Your task to perform on an android device: see creations saved in the google photos Image 0: 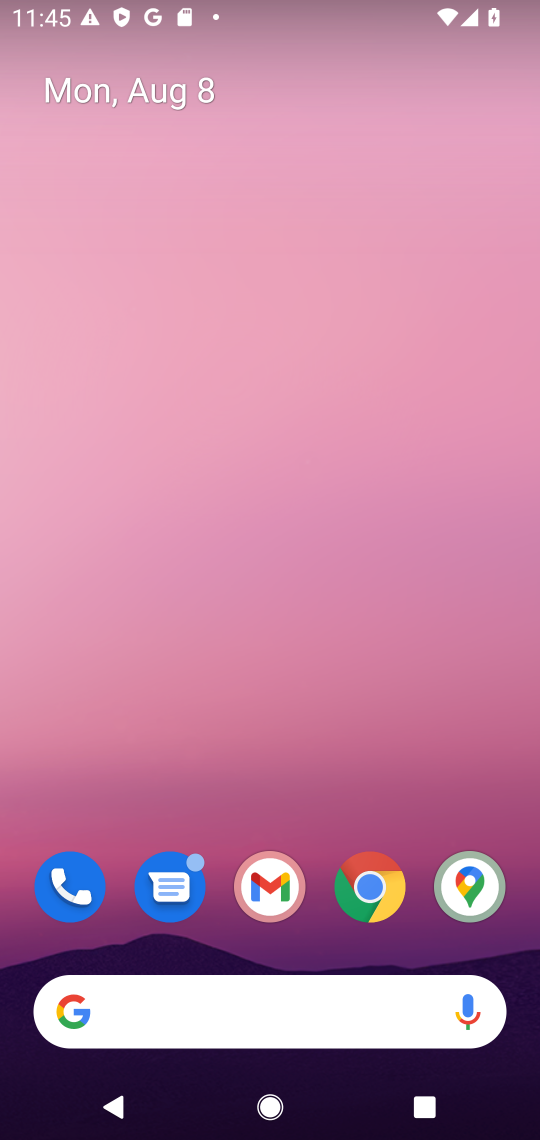
Step 0: drag from (349, 748) to (277, 85)
Your task to perform on an android device: see creations saved in the google photos Image 1: 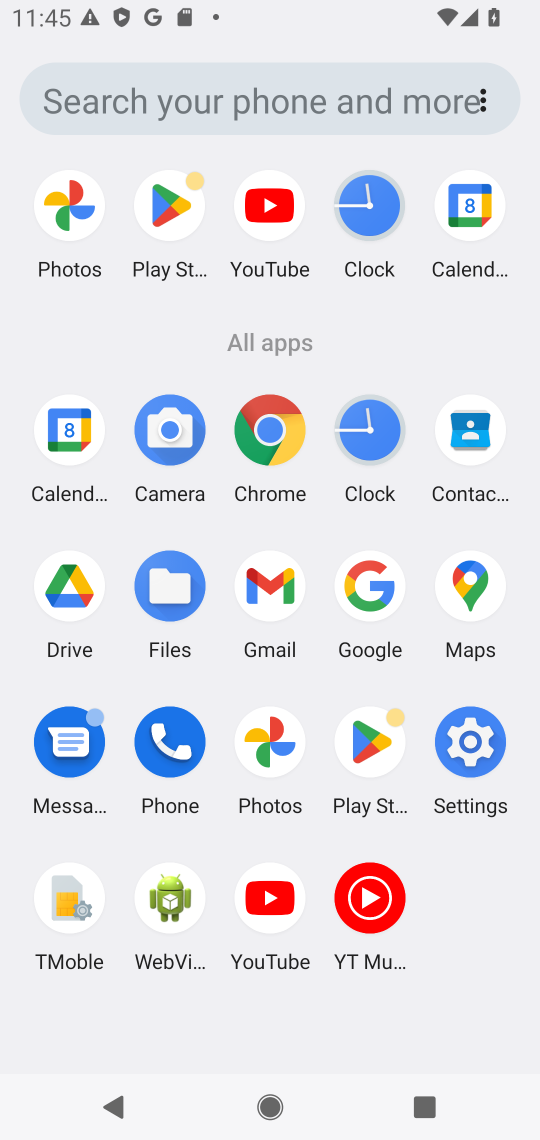
Step 1: click (73, 199)
Your task to perform on an android device: see creations saved in the google photos Image 2: 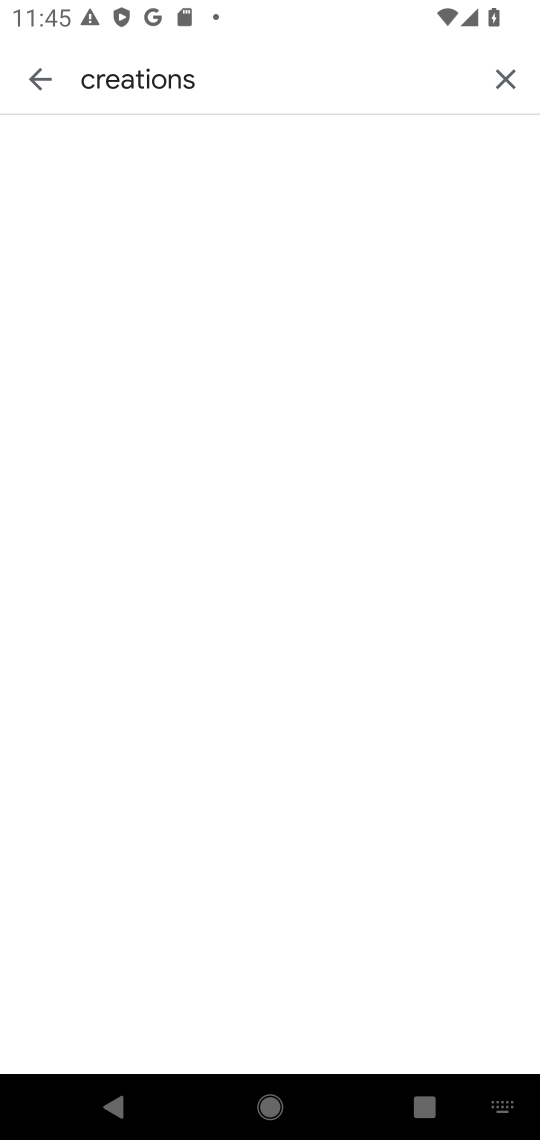
Step 2: click (314, 88)
Your task to perform on an android device: see creations saved in the google photos Image 3: 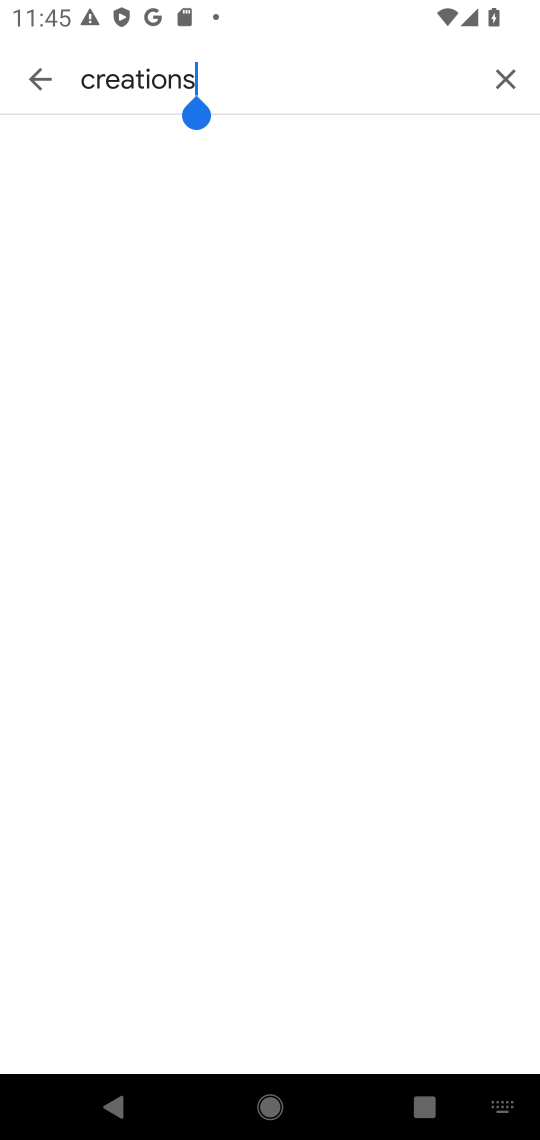
Step 3: click (32, 73)
Your task to perform on an android device: see creations saved in the google photos Image 4: 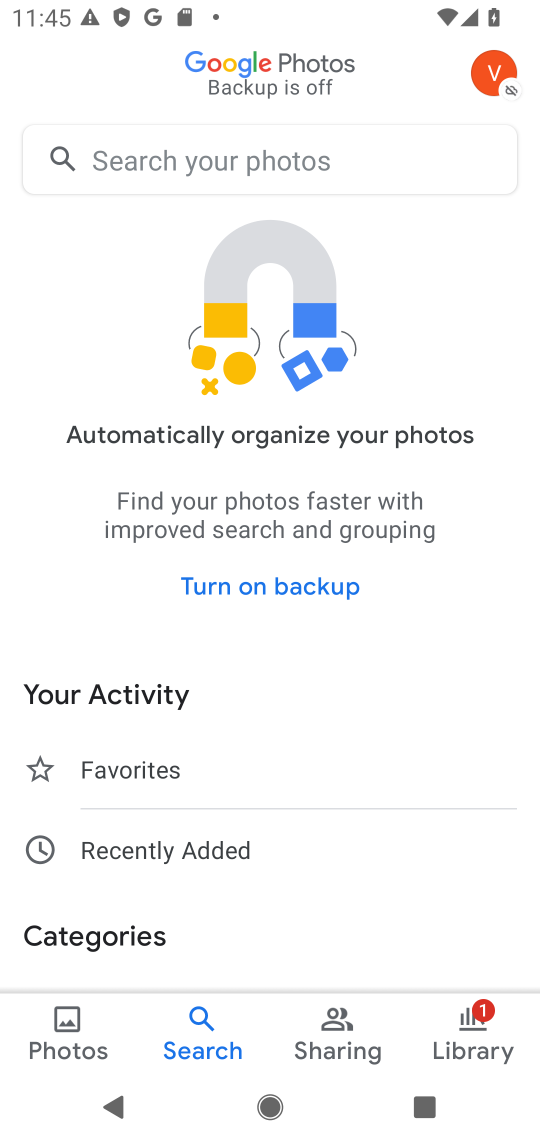
Step 4: drag from (284, 843) to (268, 515)
Your task to perform on an android device: see creations saved in the google photos Image 5: 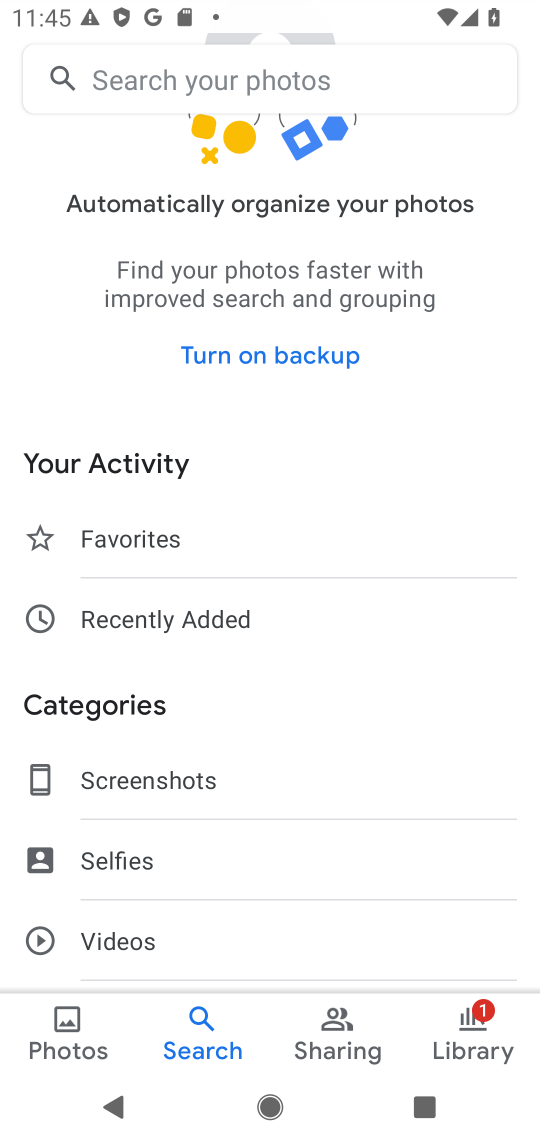
Step 5: drag from (251, 828) to (226, 471)
Your task to perform on an android device: see creations saved in the google photos Image 6: 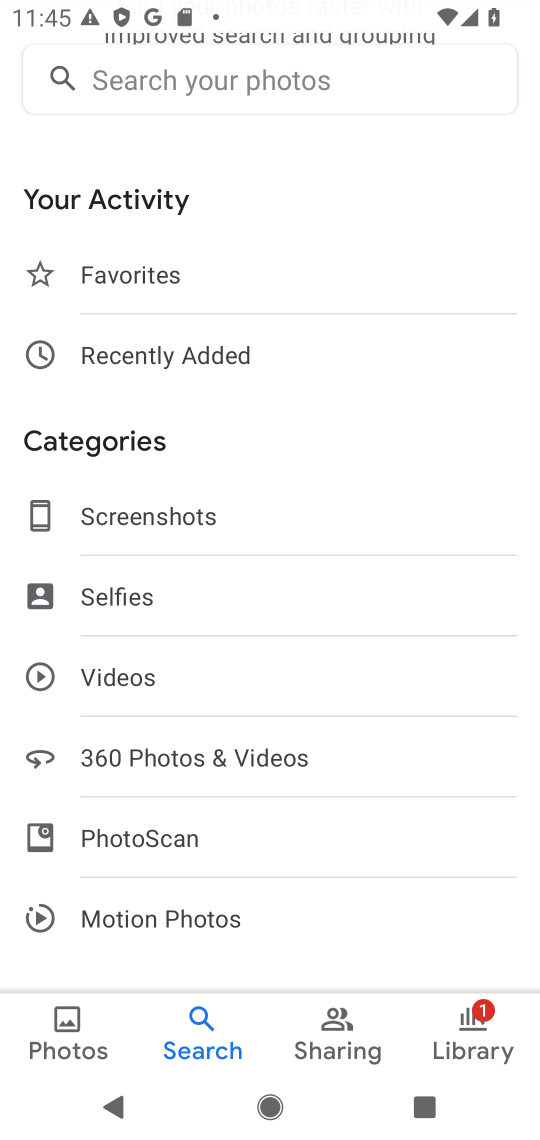
Step 6: drag from (274, 861) to (258, 585)
Your task to perform on an android device: see creations saved in the google photos Image 7: 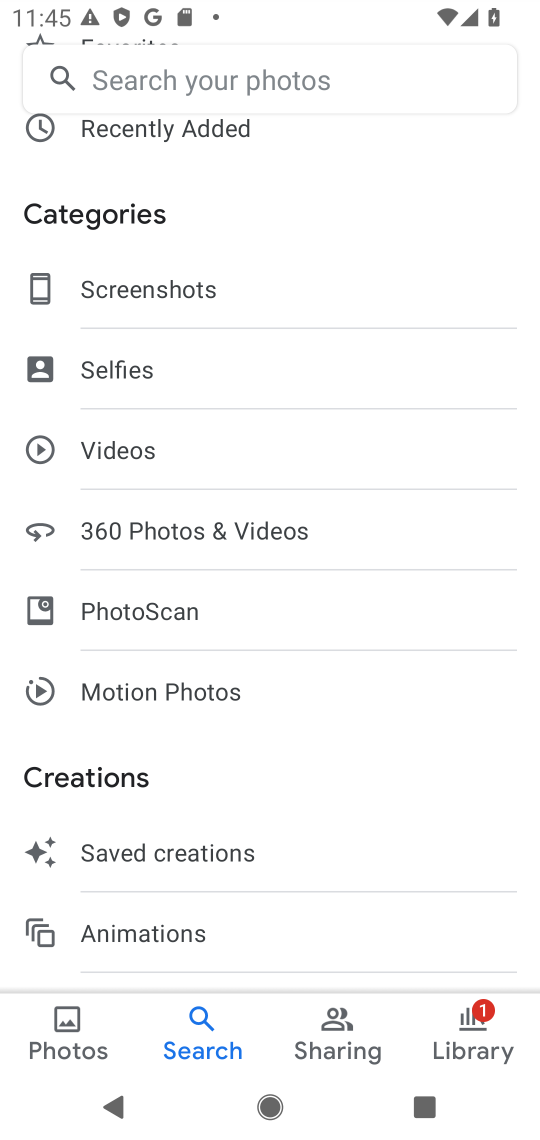
Step 7: click (159, 850)
Your task to perform on an android device: see creations saved in the google photos Image 8: 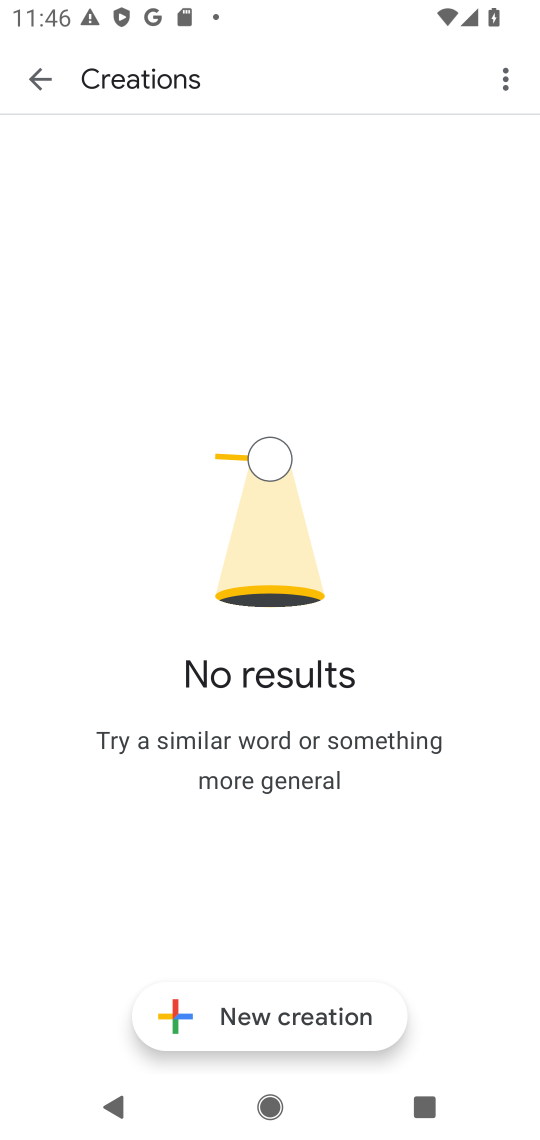
Step 8: task complete